Your task to perform on an android device: Open internet settings Image 0: 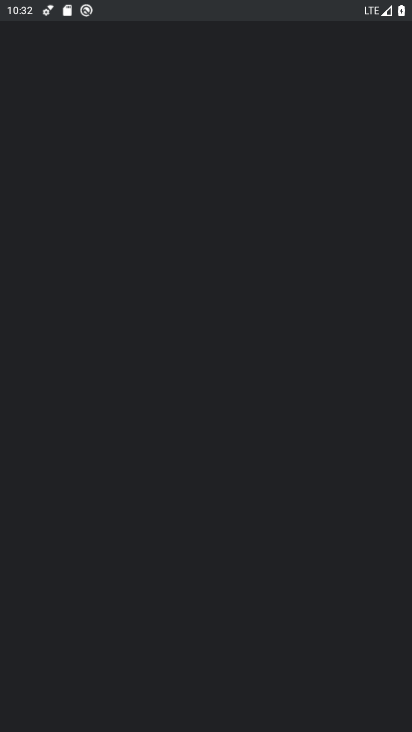
Step 0: drag from (260, 390) to (358, 190)
Your task to perform on an android device: Open internet settings Image 1: 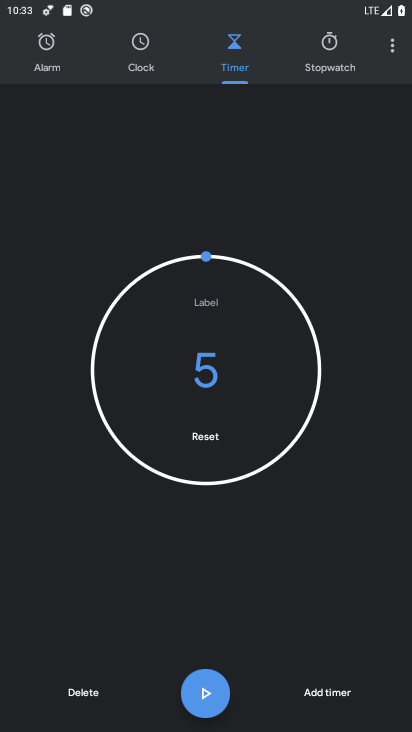
Step 1: press home button
Your task to perform on an android device: Open internet settings Image 2: 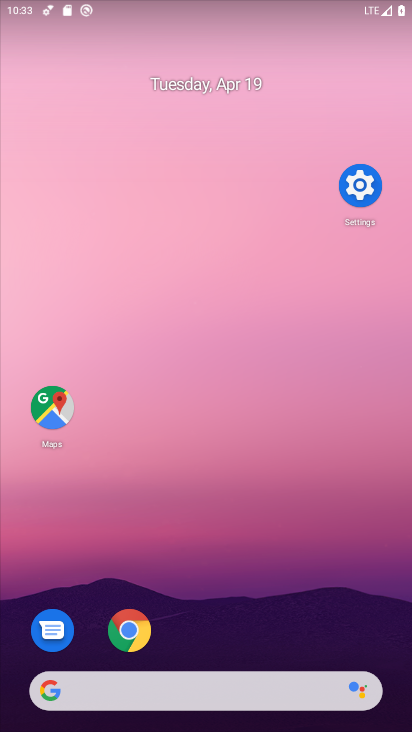
Step 2: drag from (338, 479) to (406, 164)
Your task to perform on an android device: Open internet settings Image 3: 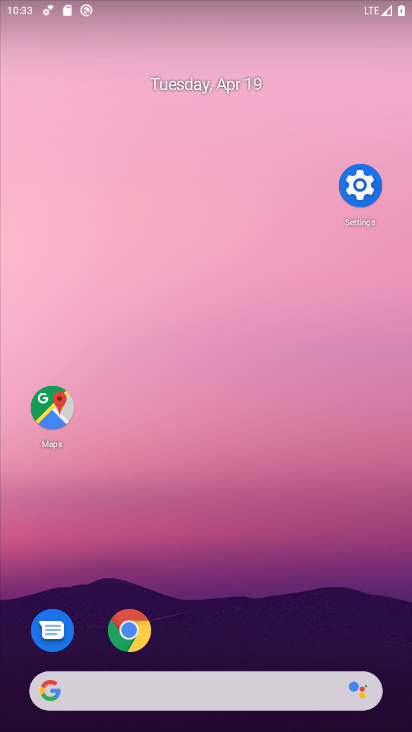
Step 3: click (372, 172)
Your task to perform on an android device: Open internet settings Image 4: 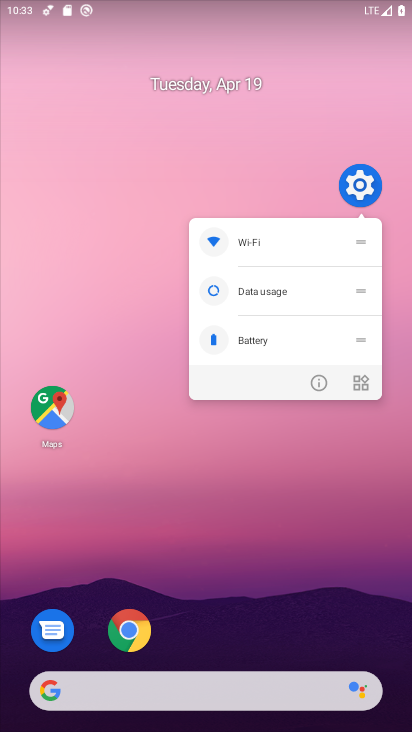
Step 4: click (361, 172)
Your task to perform on an android device: Open internet settings Image 5: 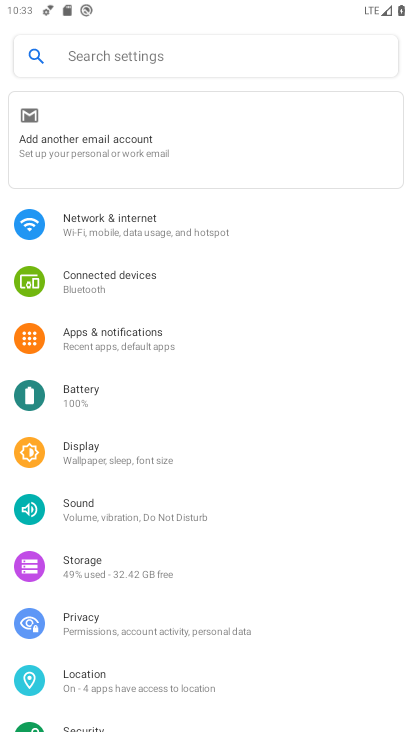
Step 5: click (216, 234)
Your task to perform on an android device: Open internet settings Image 6: 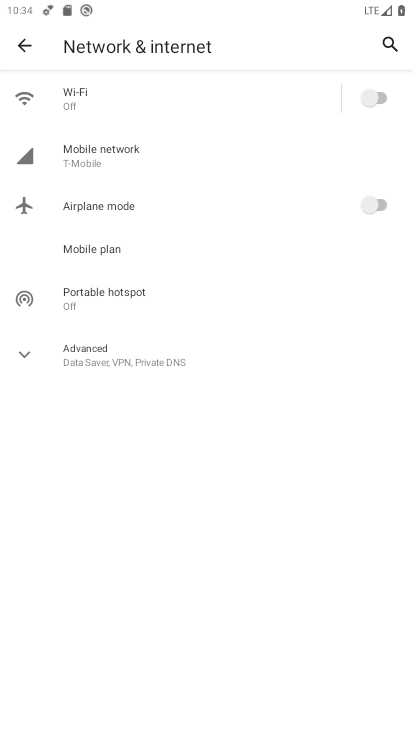
Step 6: click (187, 150)
Your task to perform on an android device: Open internet settings Image 7: 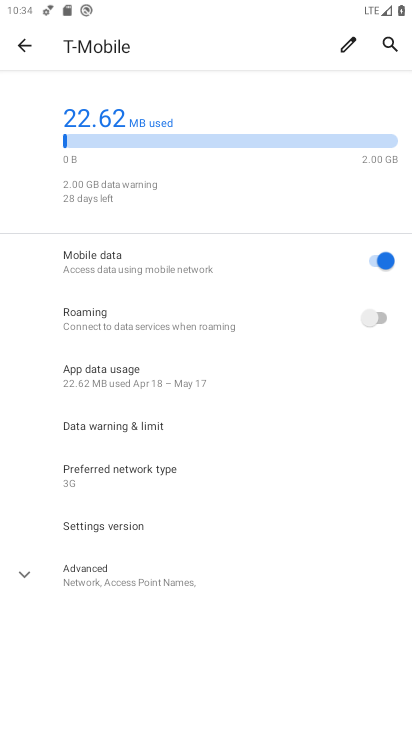
Step 7: task complete